Your task to perform on an android device: open app "Yahoo Mail" Image 0: 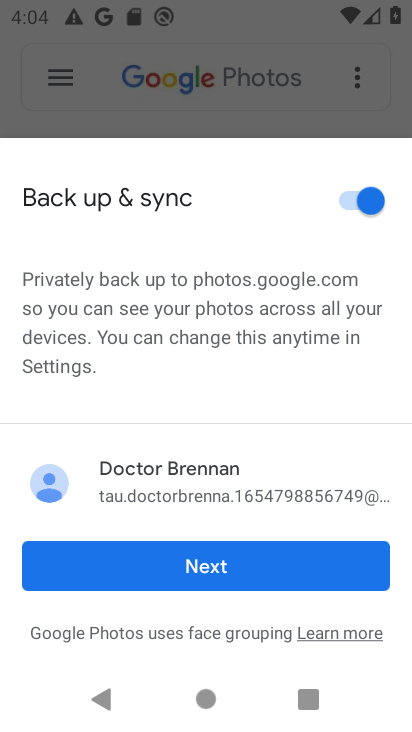
Step 0: press home button
Your task to perform on an android device: open app "Yahoo Mail" Image 1: 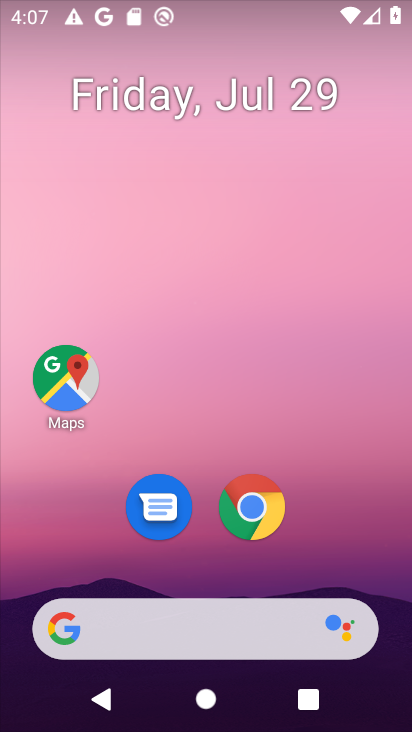
Step 1: task complete